Your task to perform on an android device: see tabs open on other devices in the chrome app Image 0: 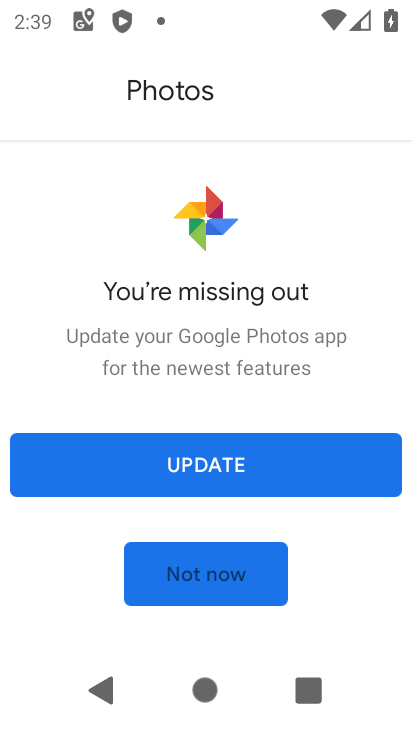
Step 0: press home button
Your task to perform on an android device: see tabs open on other devices in the chrome app Image 1: 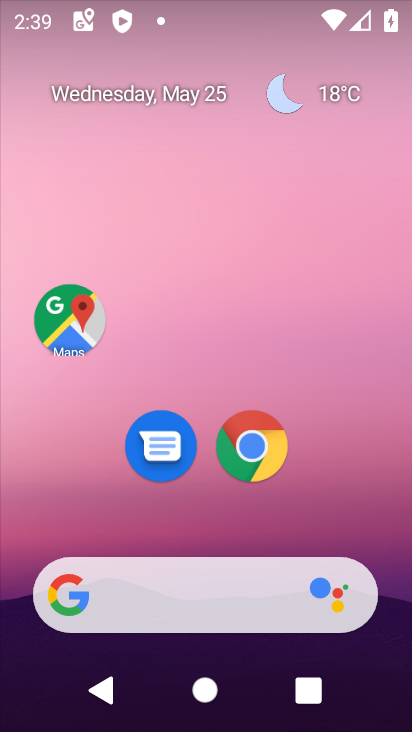
Step 1: drag from (142, 604) to (205, 309)
Your task to perform on an android device: see tabs open on other devices in the chrome app Image 2: 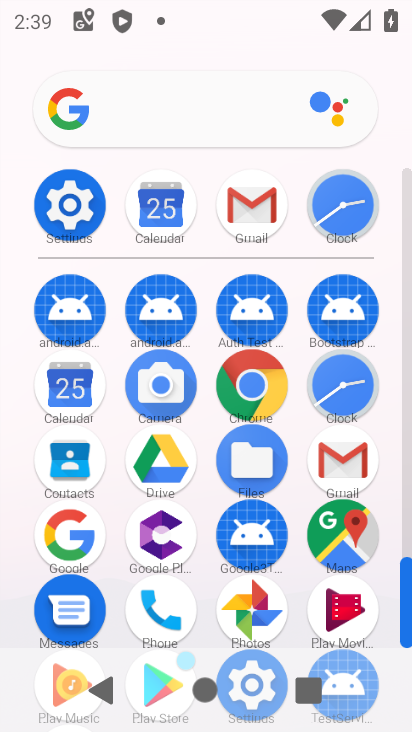
Step 2: click (242, 392)
Your task to perform on an android device: see tabs open on other devices in the chrome app Image 3: 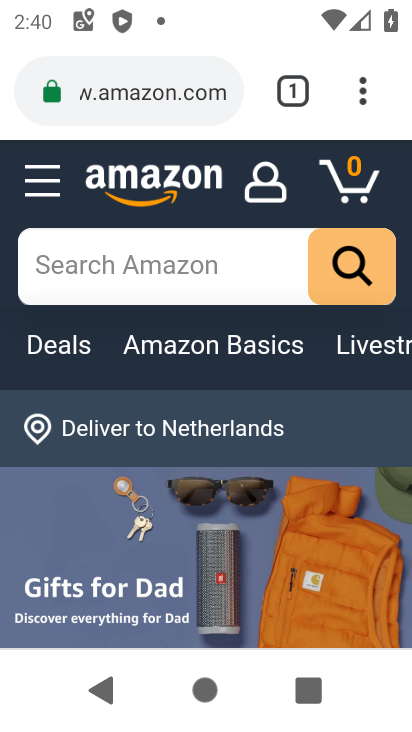
Step 3: task complete